Your task to perform on an android device: create a new album in the google photos Image 0: 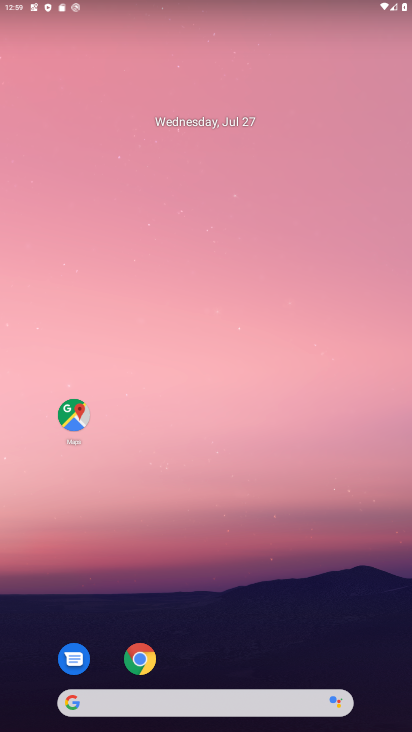
Step 0: drag from (216, 667) to (254, 422)
Your task to perform on an android device: create a new album in the google photos Image 1: 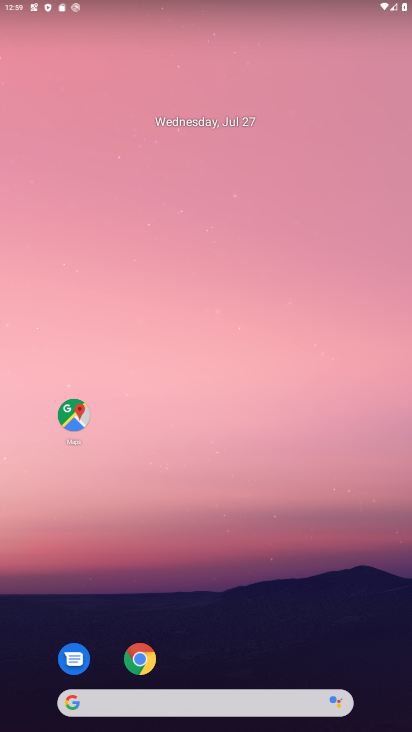
Step 1: drag from (229, 628) to (366, 3)
Your task to perform on an android device: create a new album in the google photos Image 2: 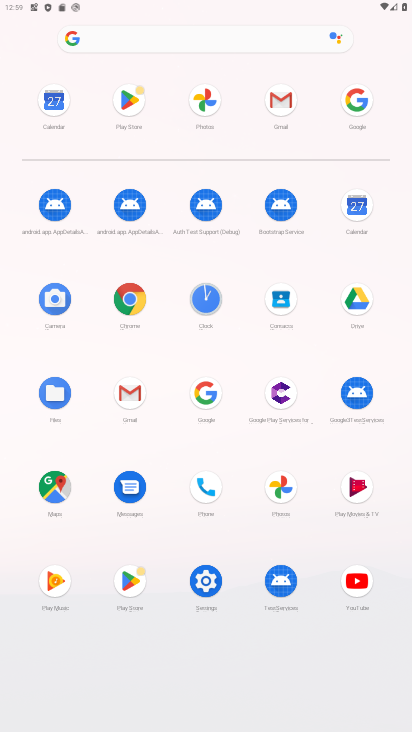
Step 2: click (219, 106)
Your task to perform on an android device: create a new album in the google photos Image 3: 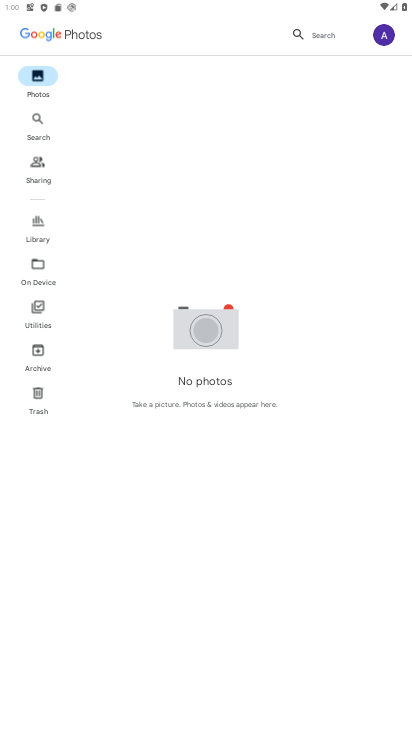
Step 3: click (392, 30)
Your task to perform on an android device: create a new album in the google photos Image 4: 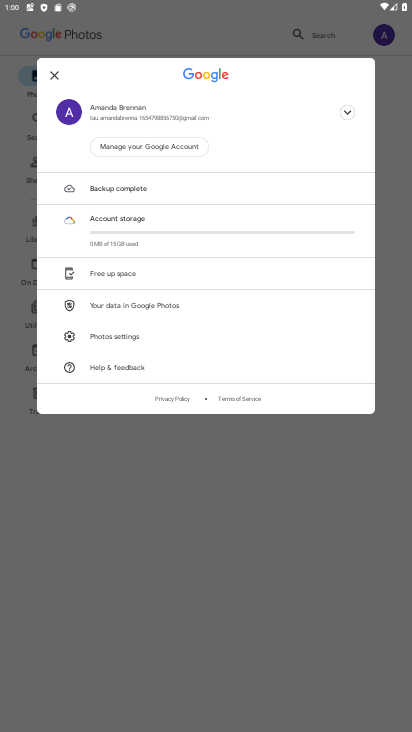
Step 4: click (347, 111)
Your task to perform on an android device: create a new album in the google photos Image 5: 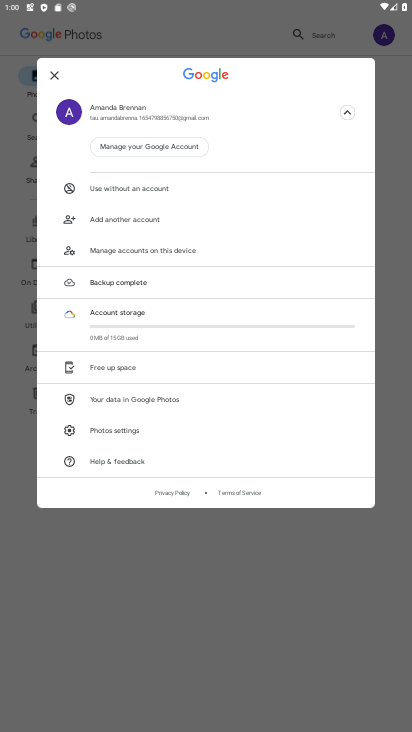
Step 5: click (117, 546)
Your task to perform on an android device: create a new album in the google photos Image 6: 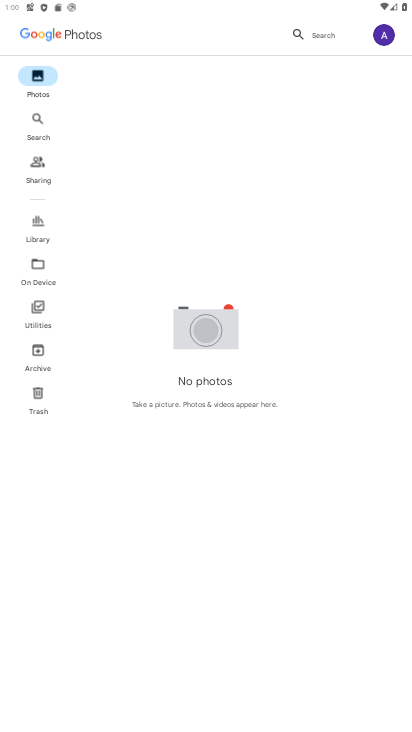
Step 6: click (159, 179)
Your task to perform on an android device: create a new album in the google photos Image 7: 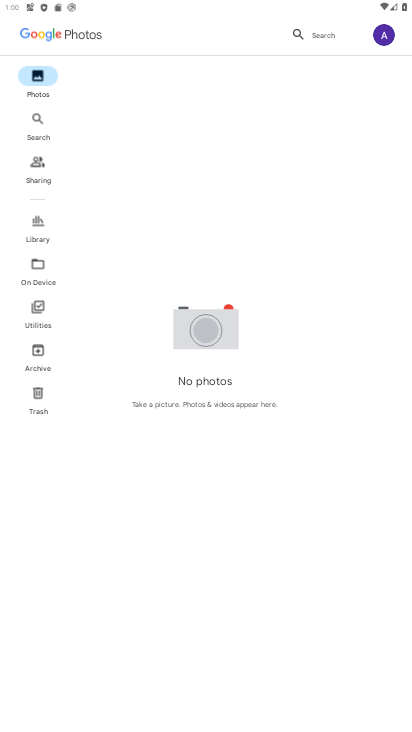
Step 7: click (37, 88)
Your task to perform on an android device: create a new album in the google photos Image 8: 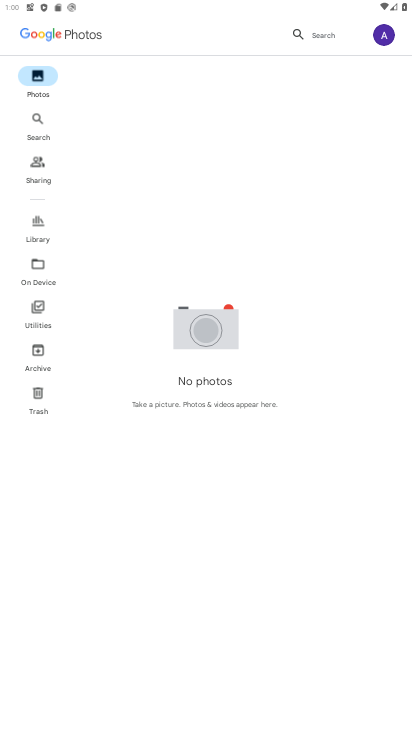
Step 8: click (37, 88)
Your task to perform on an android device: create a new album in the google photos Image 9: 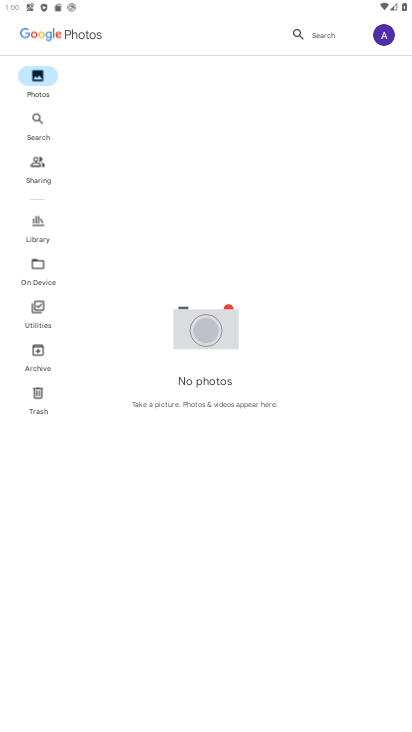
Step 9: click (33, 167)
Your task to perform on an android device: create a new album in the google photos Image 10: 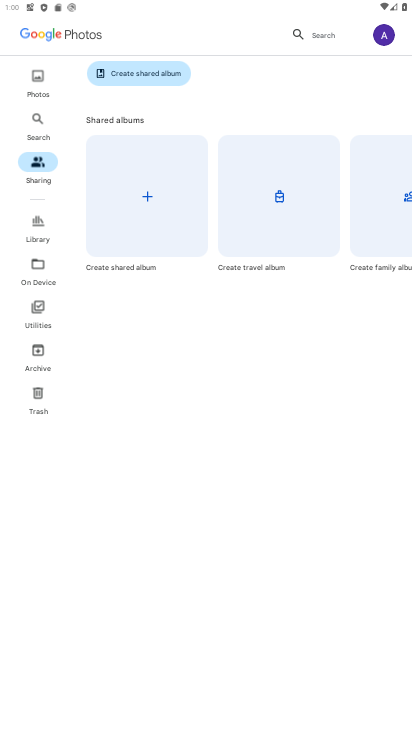
Step 10: click (37, 278)
Your task to perform on an android device: create a new album in the google photos Image 11: 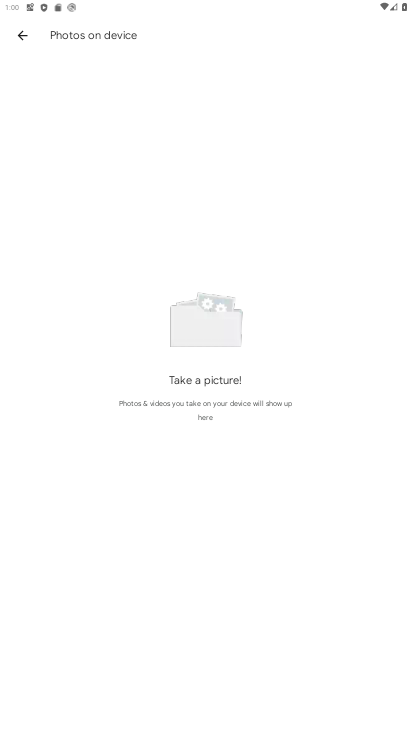
Step 11: click (24, 28)
Your task to perform on an android device: create a new album in the google photos Image 12: 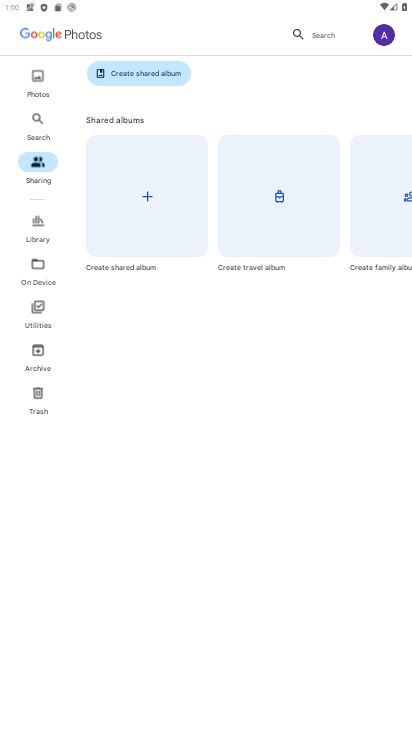
Step 12: click (40, 264)
Your task to perform on an android device: create a new album in the google photos Image 13: 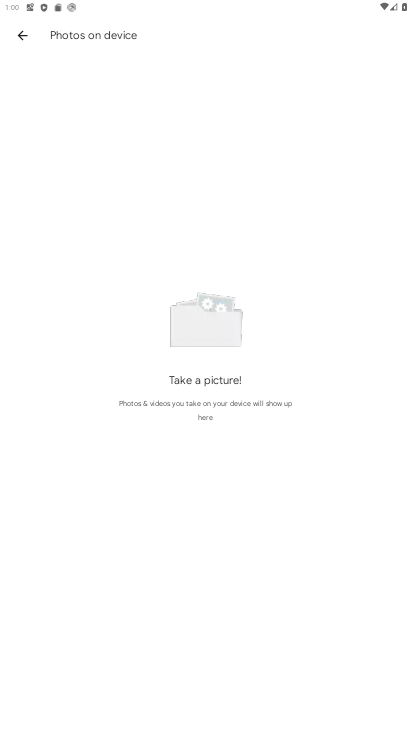
Step 13: click (148, 216)
Your task to perform on an android device: create a new album in the google photos Image 14: 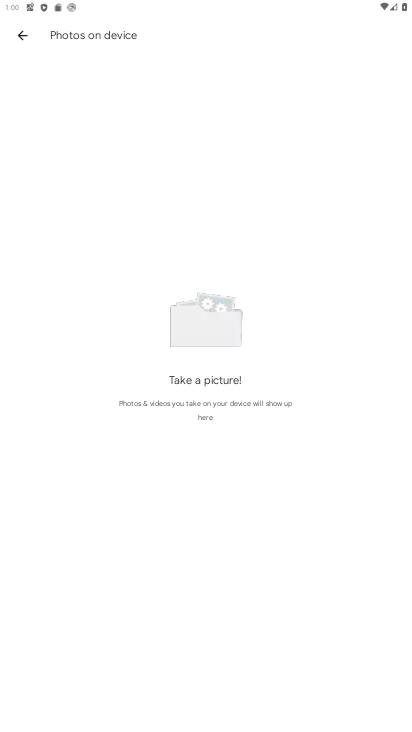
Step 14: click (22, 36)
Your task to perform on an android device: create a new album in the google photos Image 15: 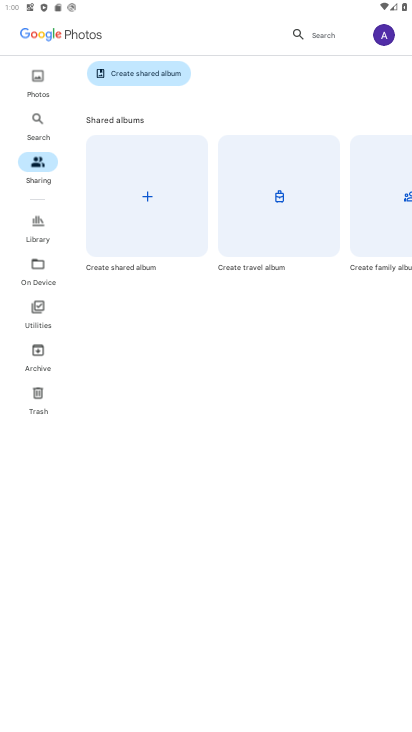
Step 15: click (307, 219)
Your task to perform on an android device: create a new album in the google photos Image 16: 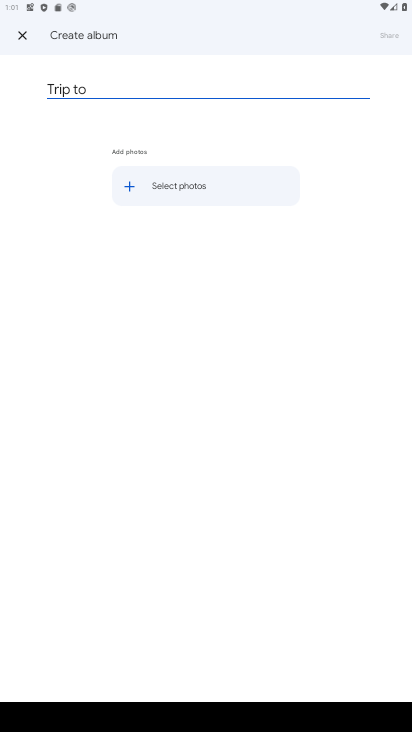
Step 16: type "kedarnath"
Your task to perform on an android device: create a new album in the google photos Image 17: 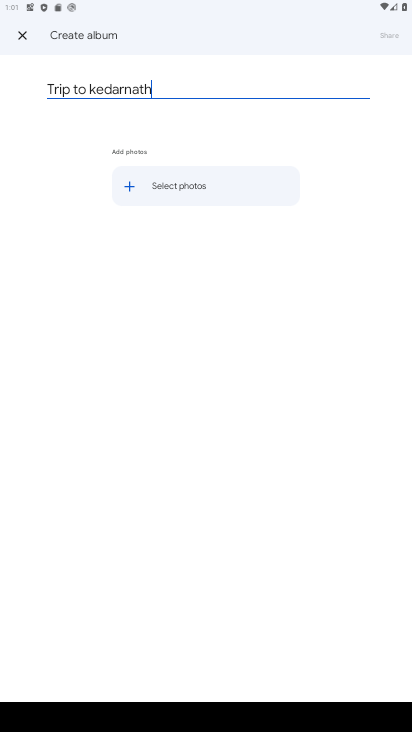
Step 17: type ""
Your task to perform on an android device: create a new album in the google photos Image 18: 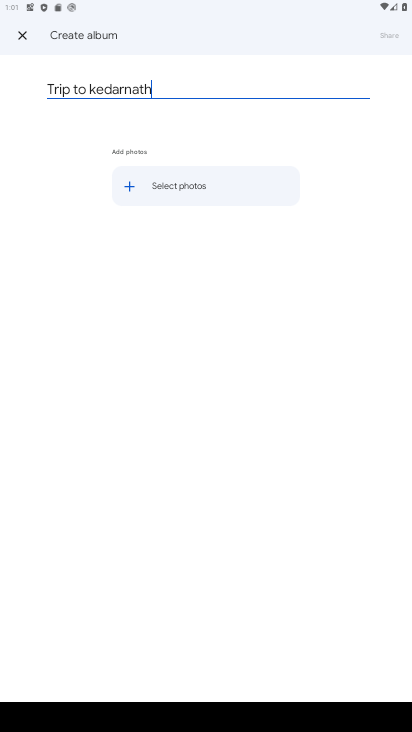
Step 18: click (191, 183)
Your task to perform on an android device: create a new album in the google photos Image 19: 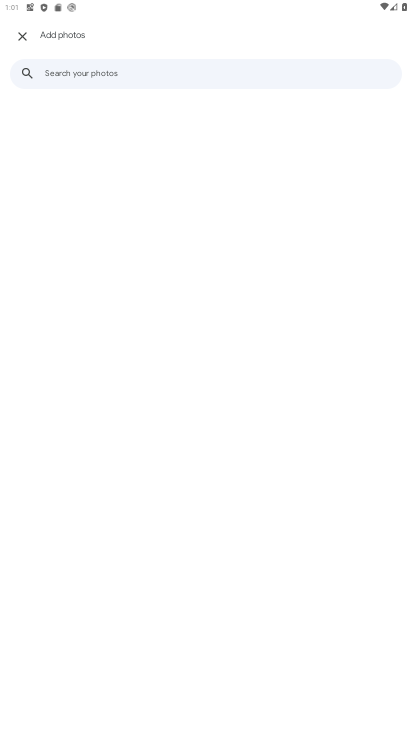
Step 19: click (19, 30)
Your task to perform on an android device: create a new album in the google photos Image 20: 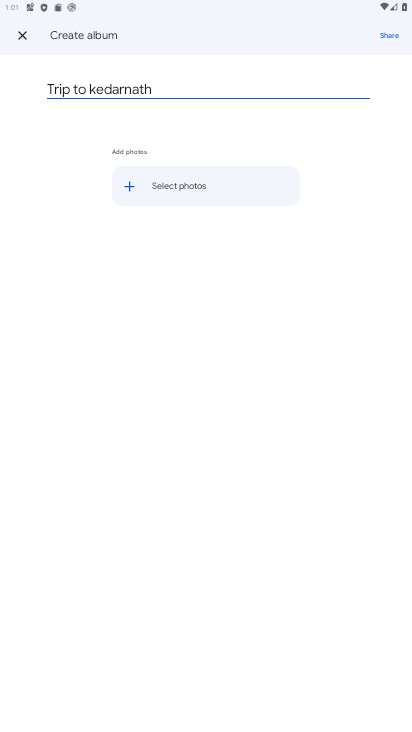
Step 20: click (398, 33)
Your task to perform on an android device: create a new album in the google photos Image 21: 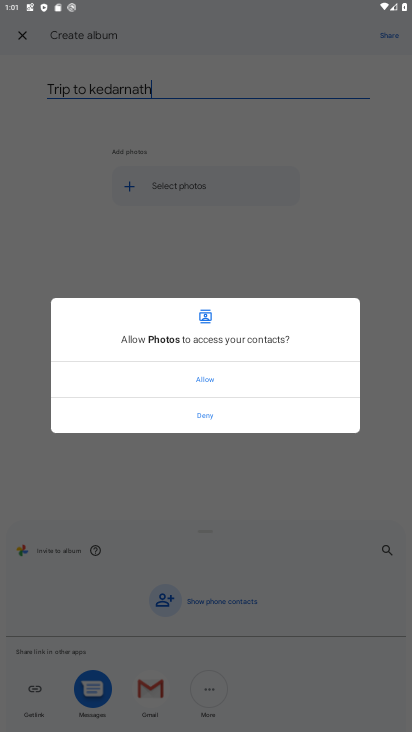
Step 21: click (211, 386)
Your task to perform on an android device: create a new album in the google photos Image 22: 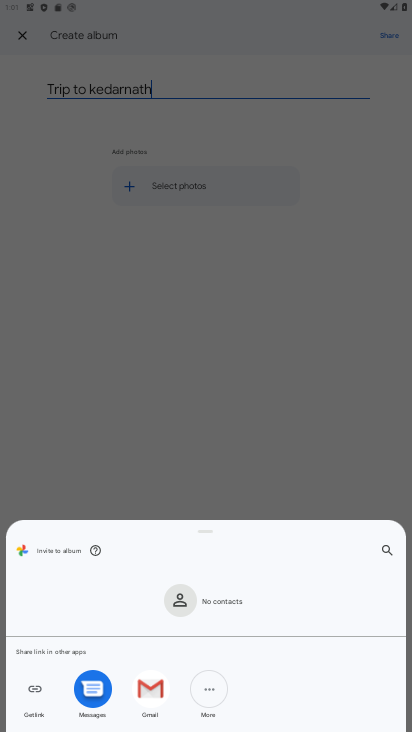
Step 22: click (374, 462)
Your task to perform on an android device: create a new album in the google photos Image 23: 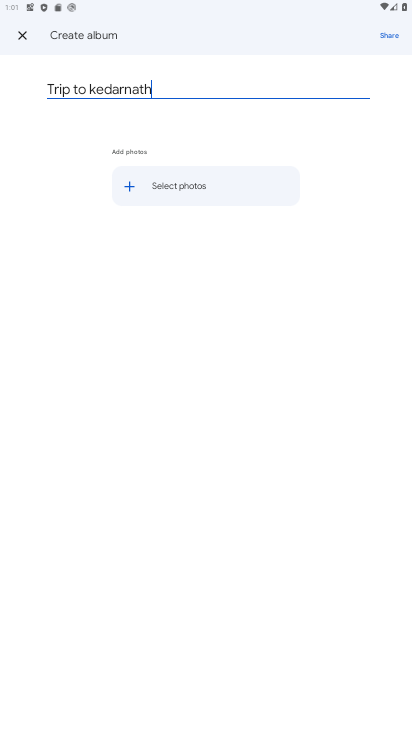
Step 23: click (385, 42)
Your task to perform on an android device: create a new album in the google photos Image 24: 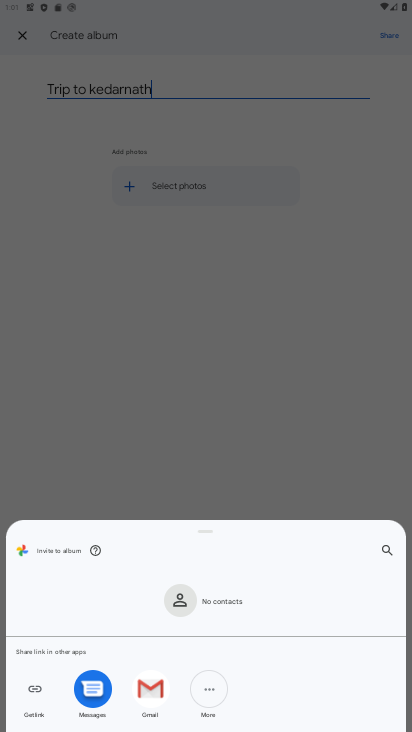
Step 24: click (219, 683)
Your task to perform on an android device: create a new album in the google photos Image 25: 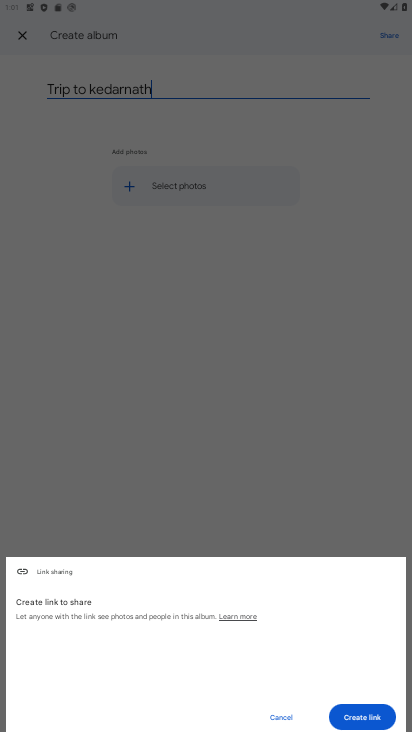
Step 25: click (377, 715)
Your task to perform on an android device: create a new album in the google photos Image 26: 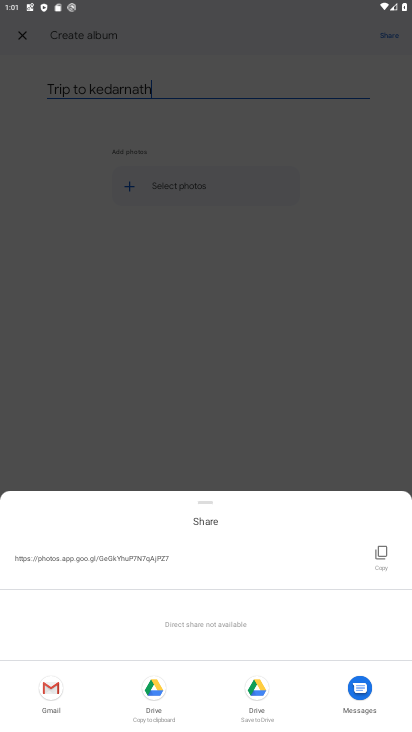
Step 26: click (154, 705)
Your task to perform on an android device: create a new album in the google photos Image 27: 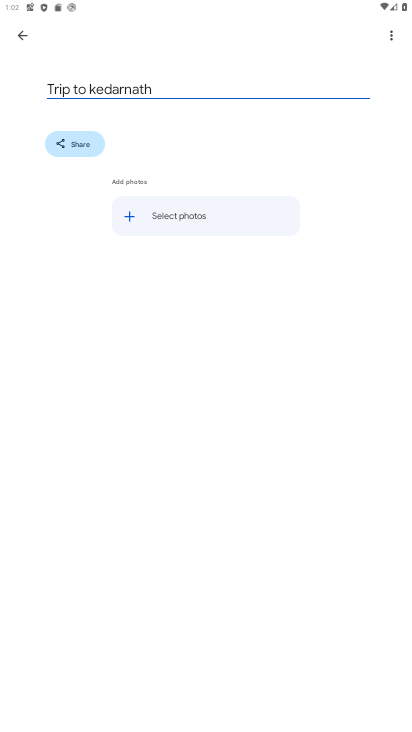
Step 27: task complete